Your task to perform on an android device: turn off improve location accuracy Image 0: 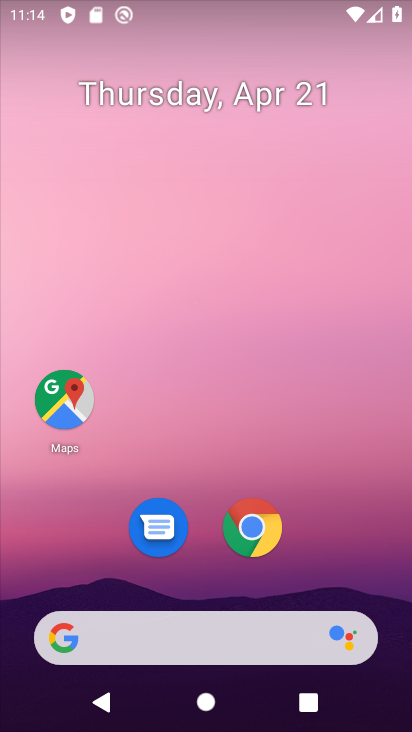
Step 0: press back button
Your task to perform on an android device: turn off improve location accuracy Image 1: 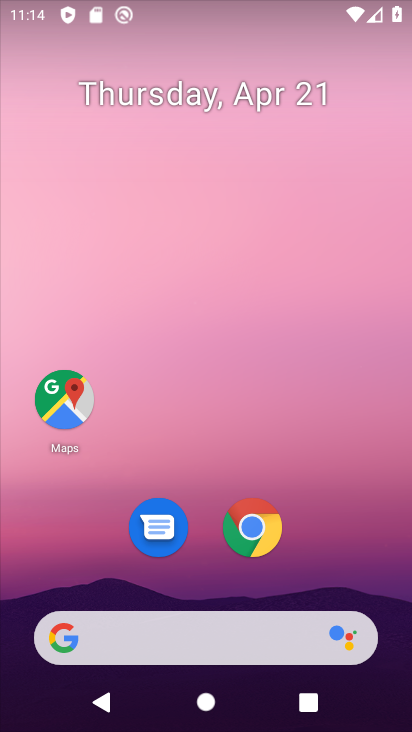
Step 1: drag from (147, 614) to (239, 261)
Your task to perform on an android device: turn off improve location accuracy Image 2: 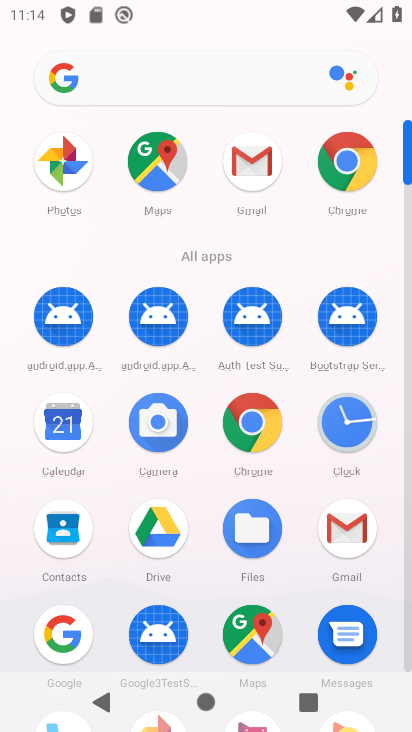
Step 2: drag from (223, 646) to (309, 321)
Your task to perform on an android device: turn off improve location accuracy Image 3: 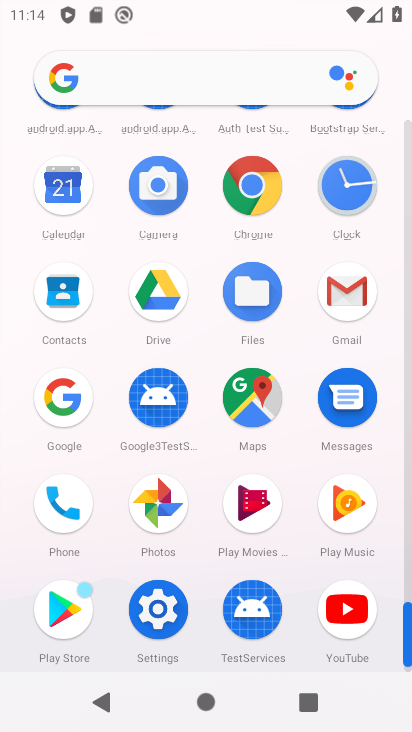
Step 3: click (164, 618)
Your task to perform on an android device: turn off improve location accuracy Image 4: 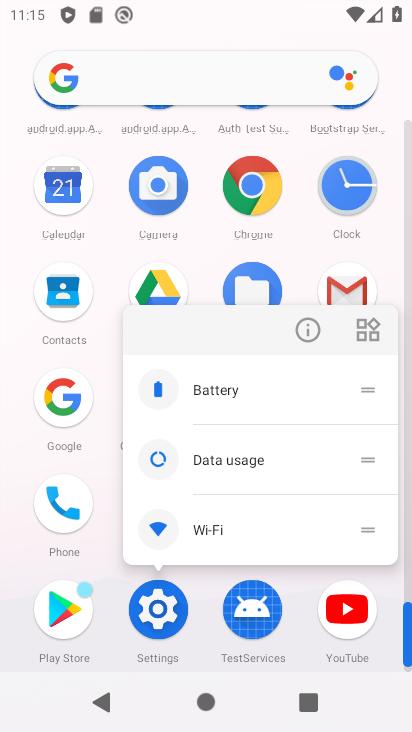
Step 4: click (147, 617)
Your task to perform on an android device: turn off improve location accuracy Image 5: 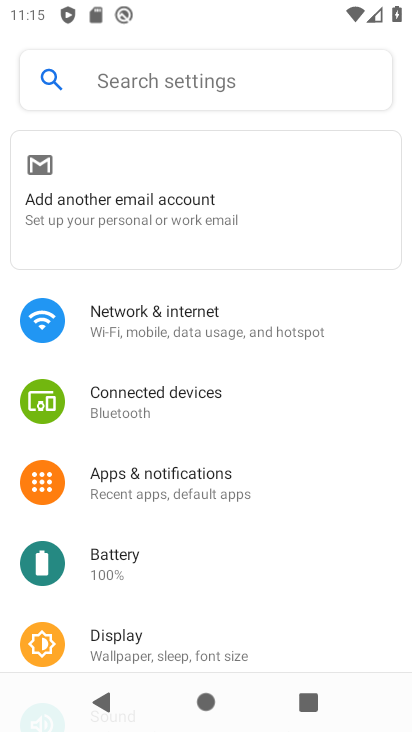
Step 5: drag from (165, 591) to (260, 287)
Your task to perform on an android device: turn off improve location accuracy Image 6: 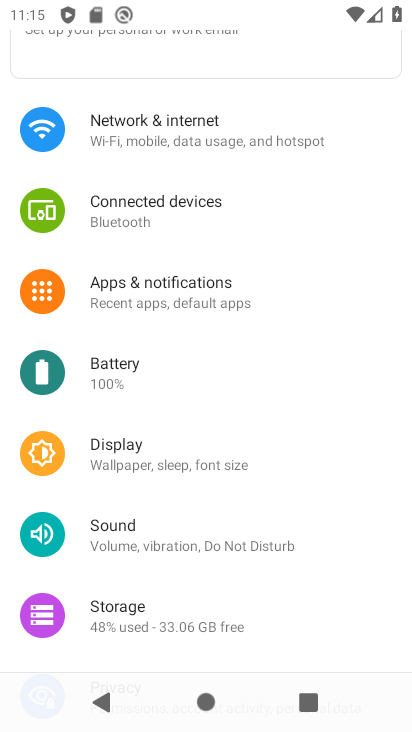
Step 6: drag from (168, 632) to (239, 358)
Your task to perform on an android device: turn off improve location accuracy Image 7: 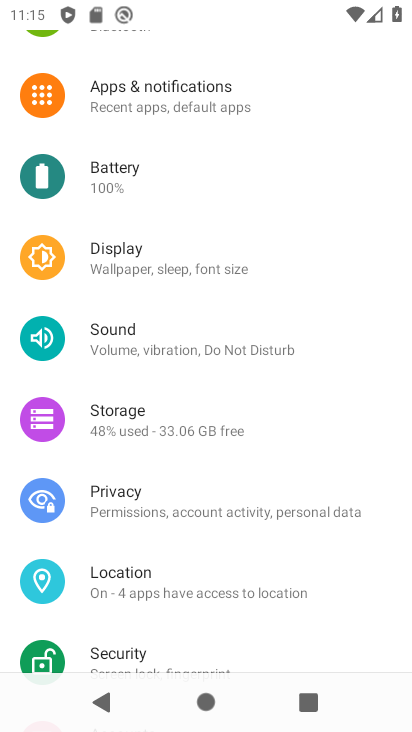
Step 7: click (183, 579)
Your task to perform on an android device: turn off improve location accuracy Image 8: 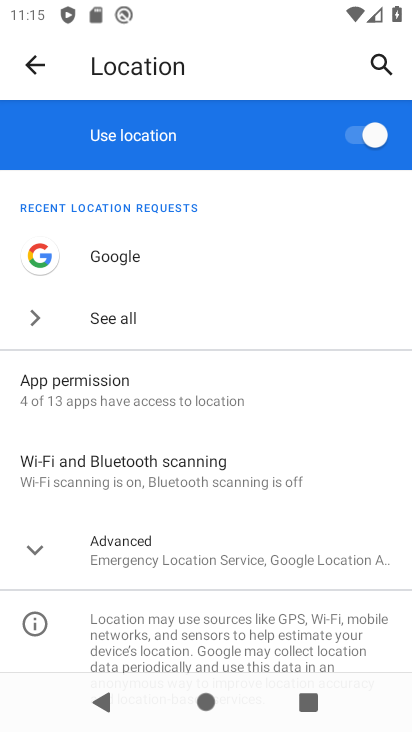
Step 8: click (182, 551)
Your task to perform on an android device: turn off improve location accuracy Image 9: 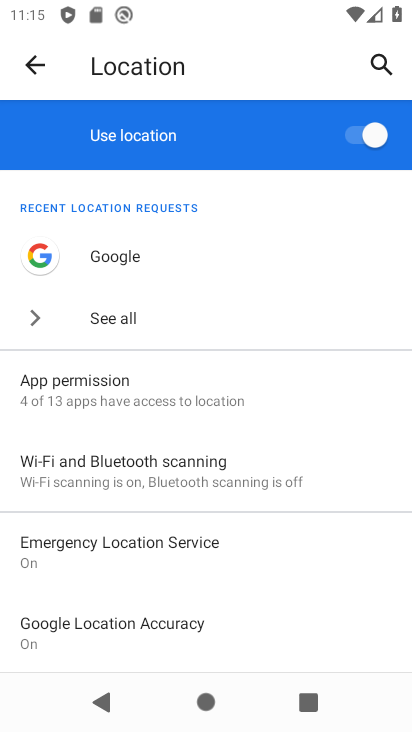
Step 9: drag from (188, 623) to (289, 334)
Your task to perform on an android device: turn off improve location accuracy Image 10: 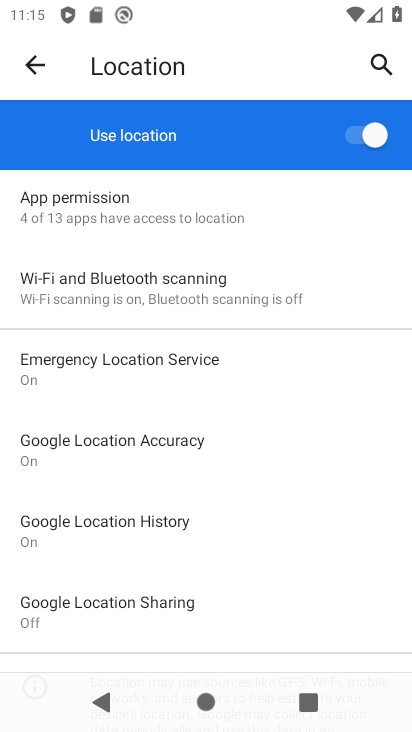
Step 10: drag from (142, 597) to (198, 419)
Your task to perform on an android device: turn off improve location accuracy Image 11: 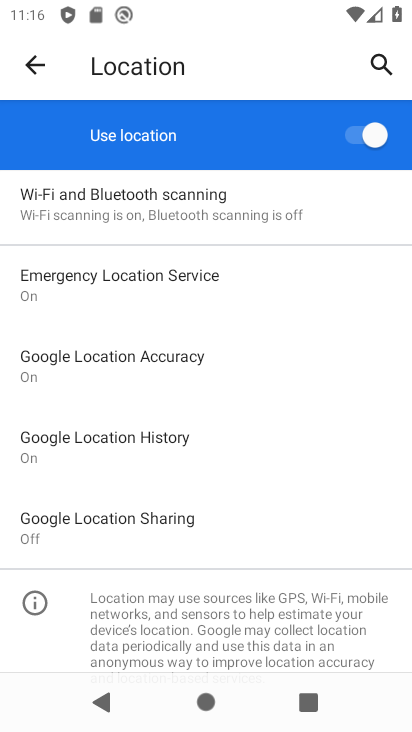
Step 11: drag from (232, 369) to (210, 526)
Your task to perform on an android device: turn off improve location accuracy Image 12: 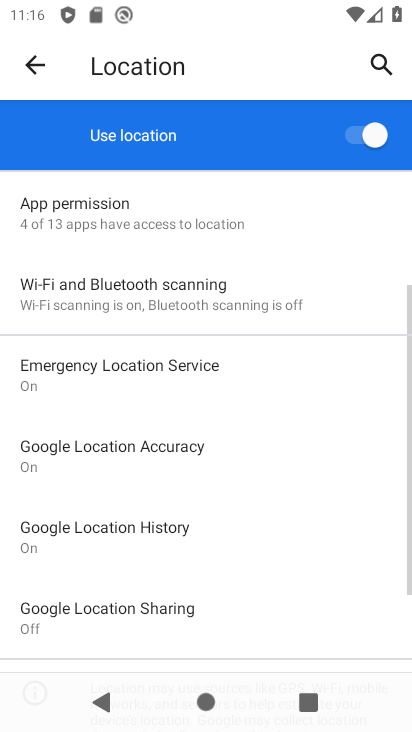
Step 12: click (185, 469)
Your task to perform on an android device: turn off improve location accuracy Image 13: 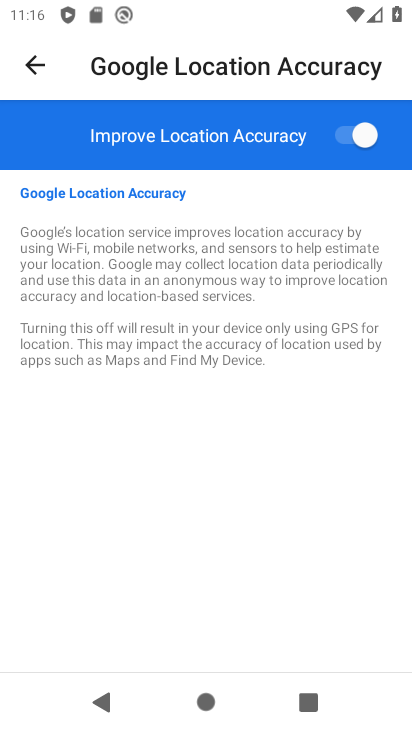
Step 13: click (355, 133)
Your task to perform on an android device: turn off improve location accuracy Image 14: 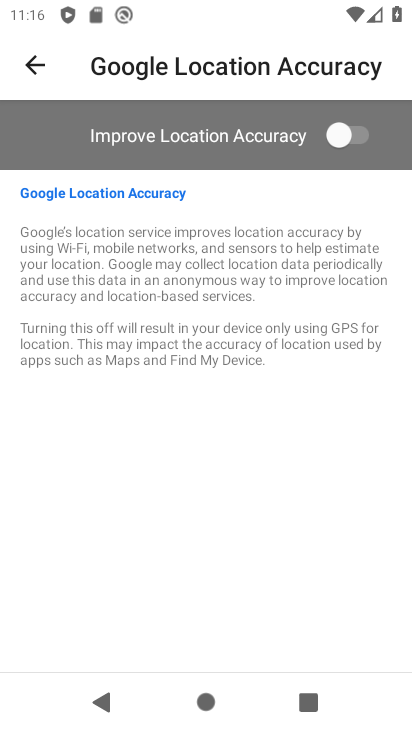
Step 14: task complete